Your task to perform on an android device: Do I have any events today? Image 0: 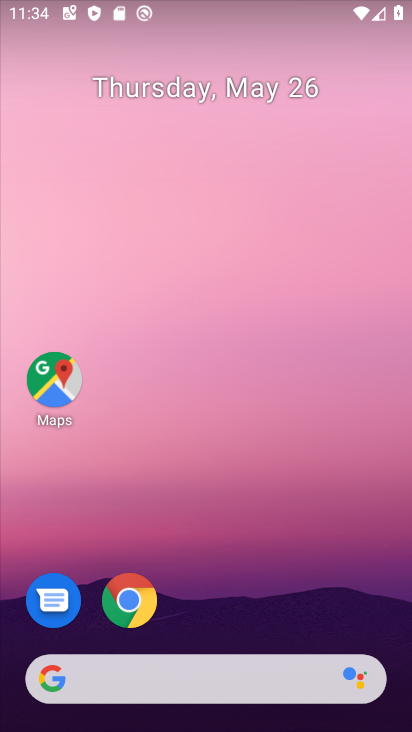
Step 0: click (153, 81)
Your task to perform on an android device: Do I have any events today? Image 1: 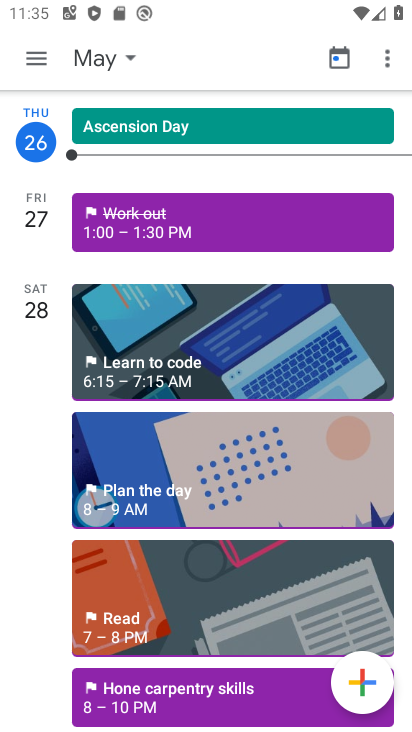
Step 1: task complete